Your task to perform on an android device: Open privacy settings Image 0: 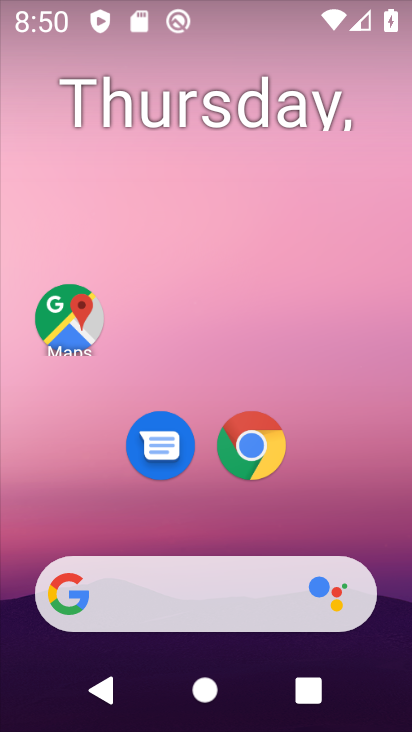
Step 0: drag from (9, 618) to (350, 207)
Your task to perform on an android device: Open privacy settings Image 1: 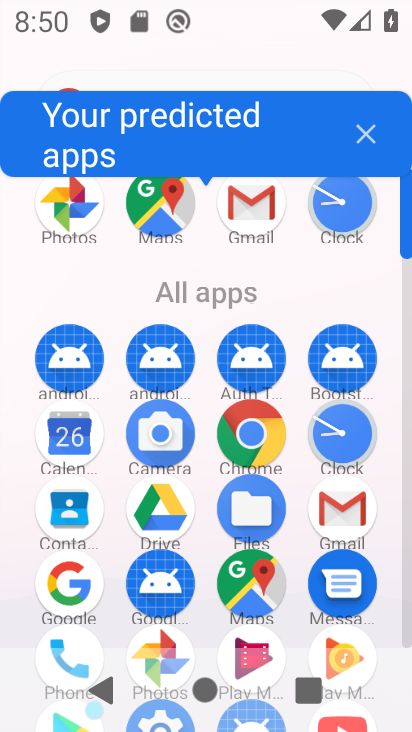
Step 1: drag from (25, 516) to (218, 208)
Your task to perform on an android device: Open privacy settings Image 2: 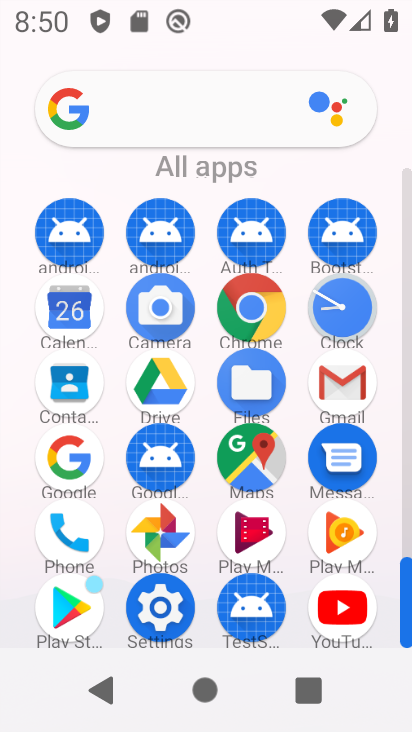
Step 2: click (136, 597)
Your task to perform on an android device: Open privacy settings Image 3: 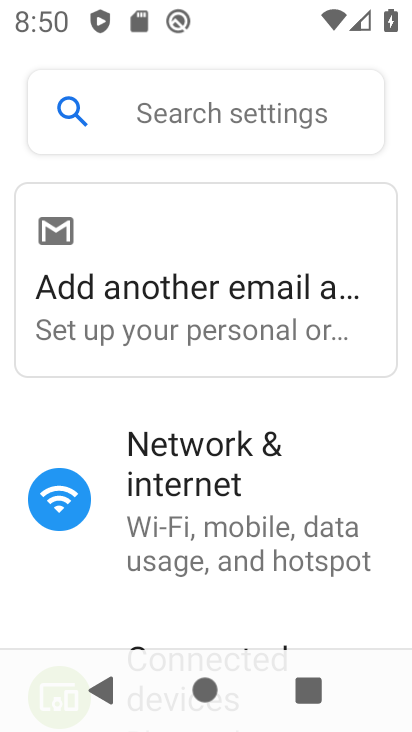
Step 3: drag from (46, 474) to (247, 201)
Your task to perform on an android device: Open privacy settings Image 4: 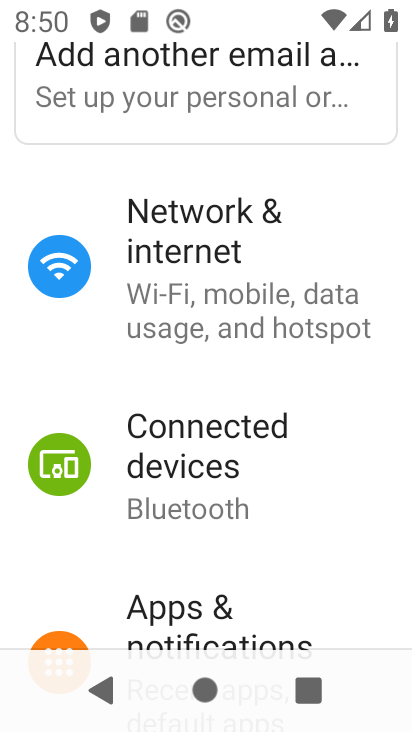
Step 4: drag from (20, 526) to (231, 259)
Your task to perform on an android device: Open privacy settings Image 5: 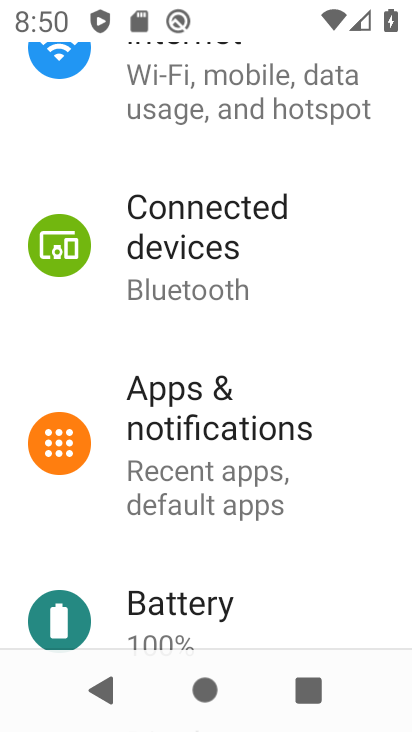
Step 5: drag from (57, 502) to (248, 294)
Your task to perform on an android device: Open privacy settings Image 6: 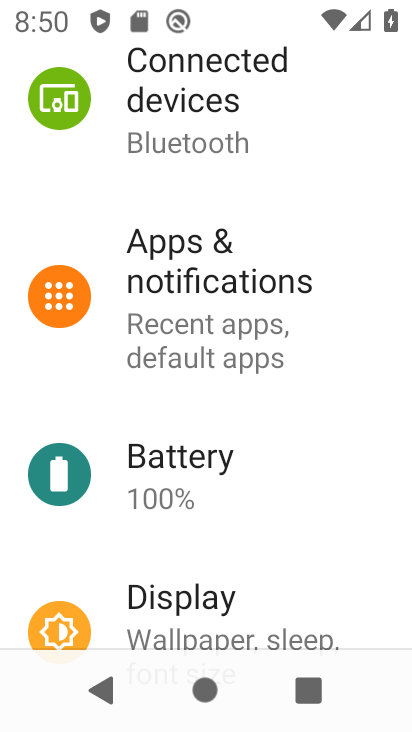
Step 6: drag from (3, 590) to (285, 297)
Your task to perform on an android device: Open privacy settings Image 7: 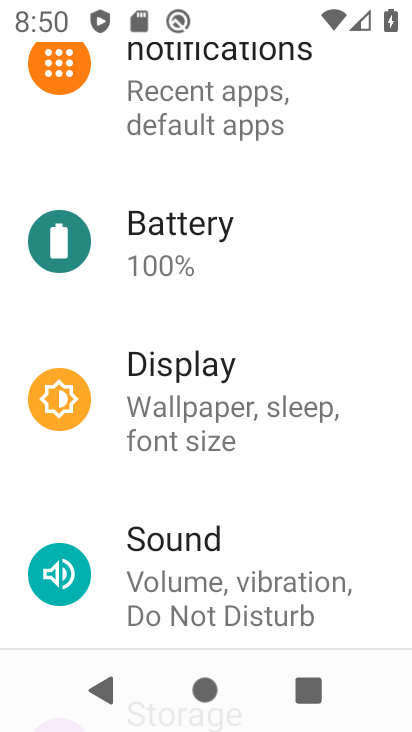
Step 7: drag from (47, 519) to (221, 306)
Your task to perform on an android device: Open privacy settings Image 8: 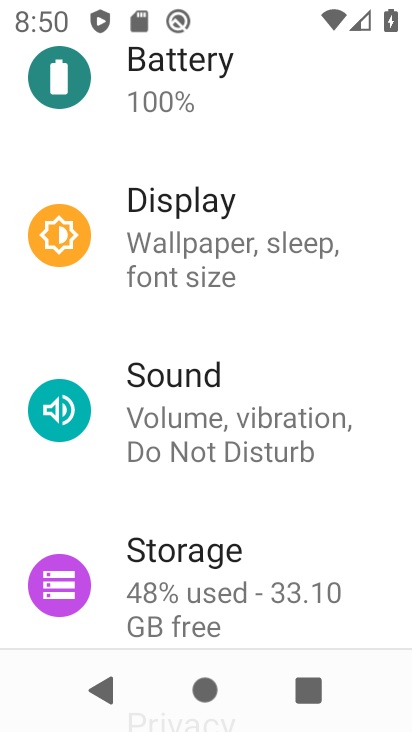
Step 8: drag from (21, 528) to (238, 324)
Your task to perform on an android device: Open privacy settings Image 9: 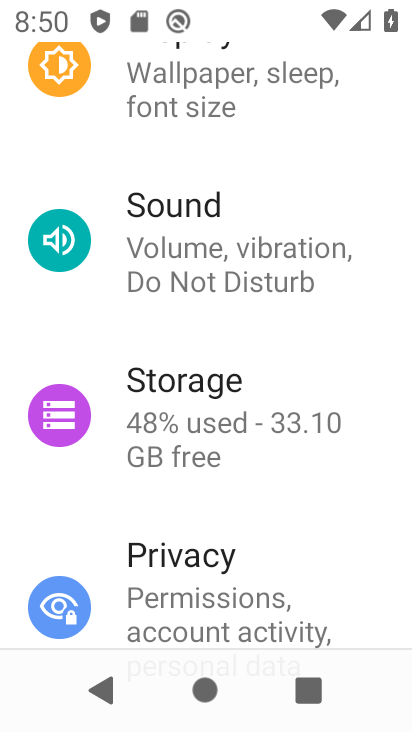
Step 9: click (161, 586)
Your task to perform on an android device: Open privacy settings Image 10: 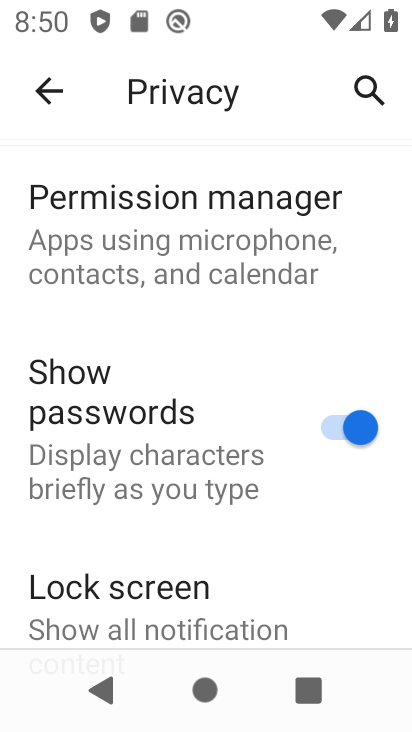
Step 10: task complete